Your task to perform on an android device: add a label to a message in the gmail app Image 0: 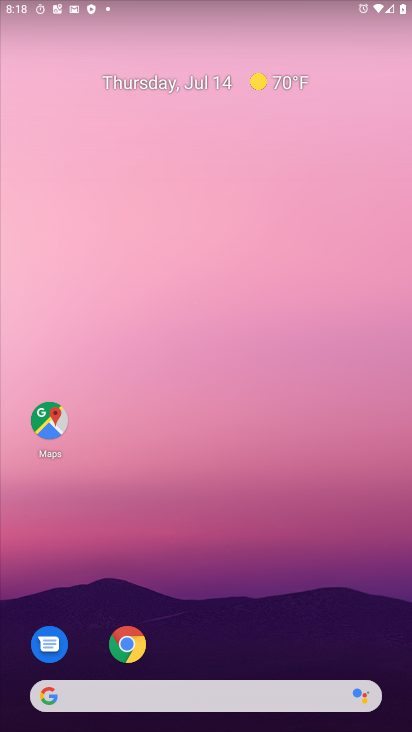
Step 0: drag from (183, 671) to (404, 181)
Your task to perform on an android device: add a label to a message in the gmail app Image 1: 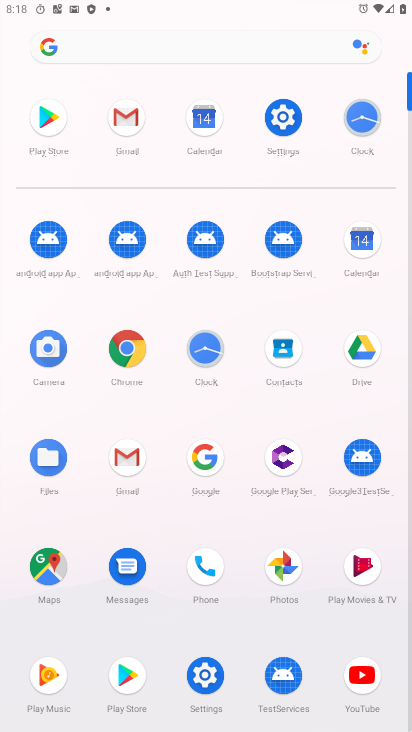
Step 1: click (133, 121)
Your task to perform on an android device: add a label to a message in the gmail app Image 2: 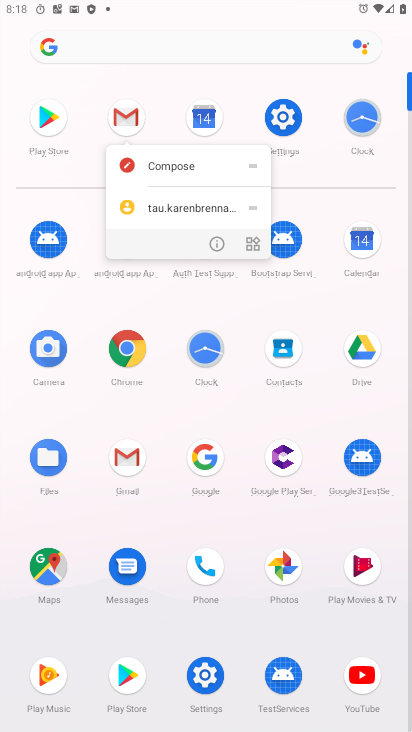
Step 2: click (133, 119)
Your task to perform on an android device: add a label to a message in the gmail app Image 3: 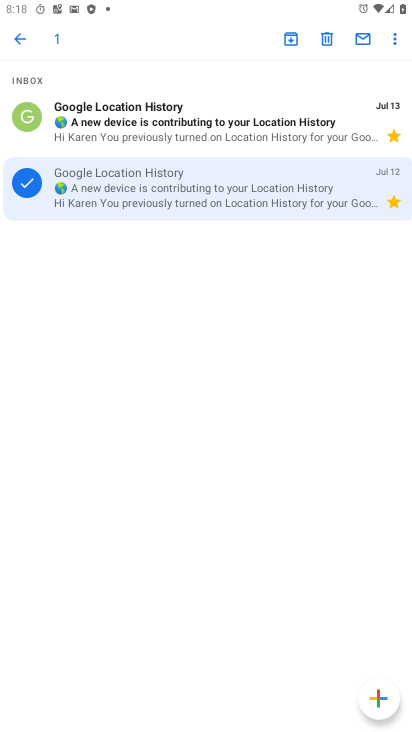
Step 3: click (28, 179)
Your task to perform on an android device: add a label to a message in the gmail app Image 4: 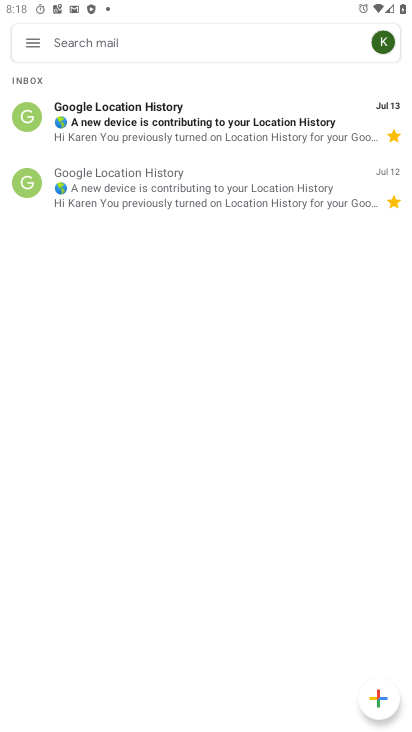
Step 4: click (196, 136)
Your task to perform on an android device: add a label to a message in the gmail app Image 5: 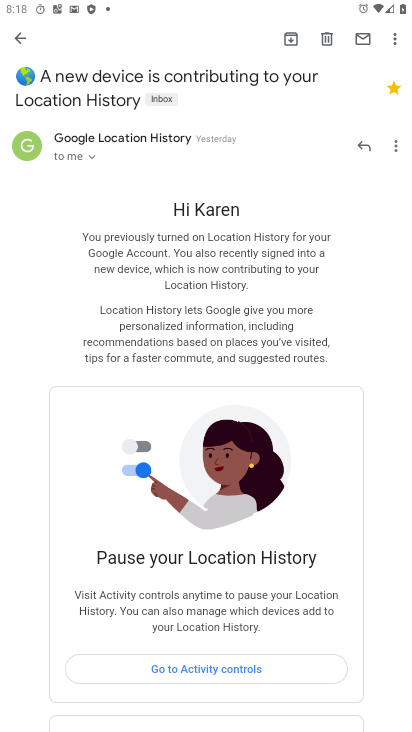
Step 5: click (163, 102)
Your task to perform on an android device: add a label to a message in the gmail app Image 6: 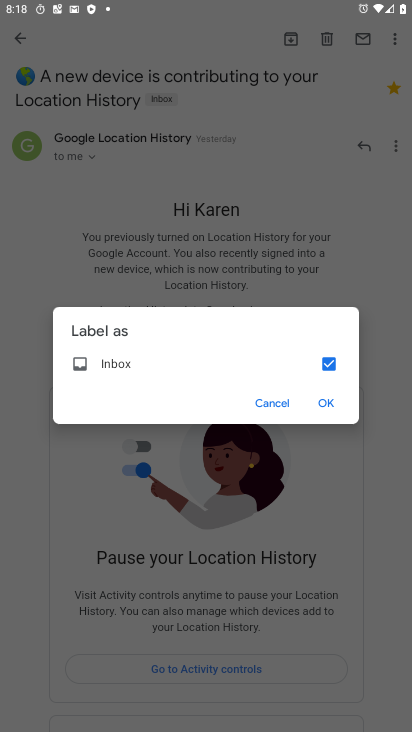
Step 6: task complete